Your task to perform on an android device: turn pop-ups on in chrome Image 0: 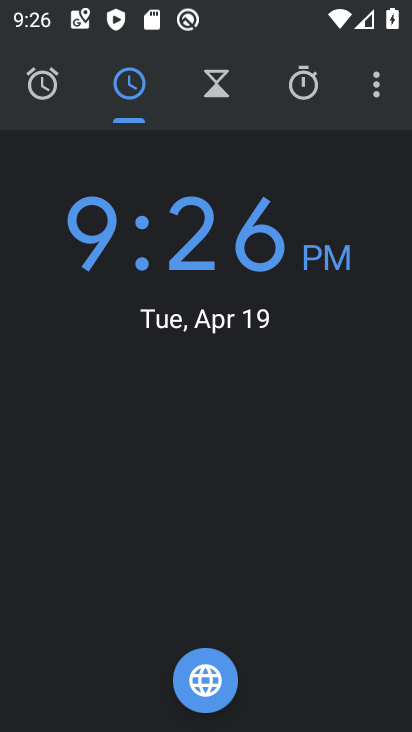
Step 0: press home button
Your task to perform on an android device: turn pop-ups on in chrome Image 1: 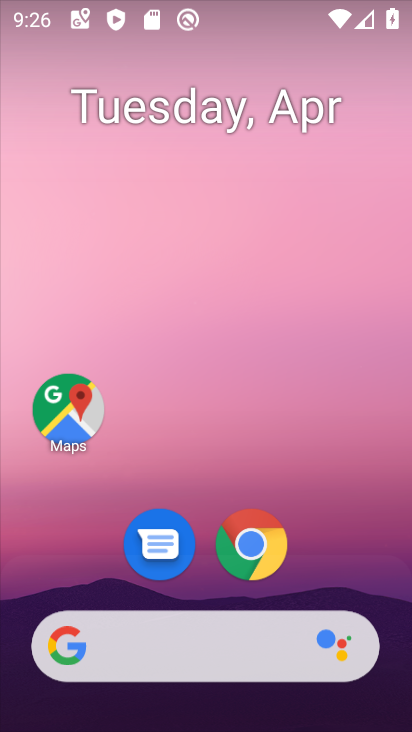
Step 1: click (266, 543)
Your task to perform on an android device: turn pop-ups on in chrome Image 2: 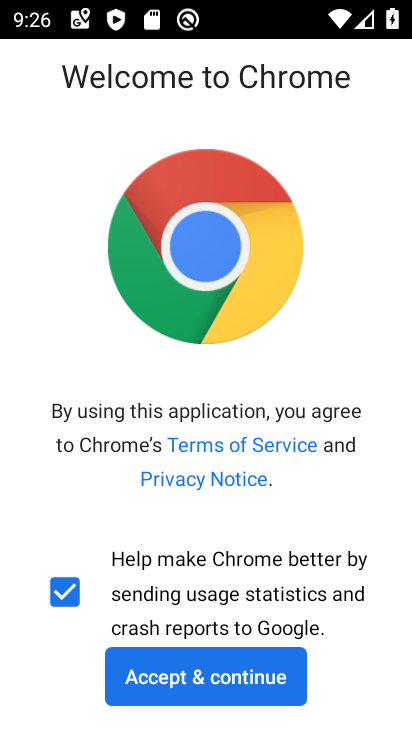
Step 2: click (192, 673)
Your task to perform on an android device: turn pop-ups on in chrome Image 3: 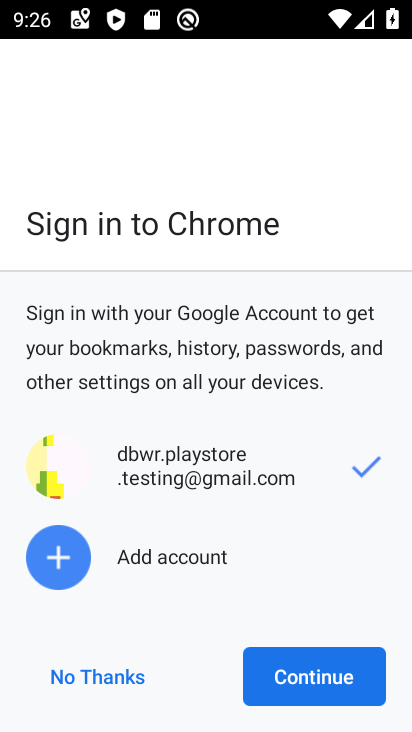
Step 3: click (289, 689)
Your task to perform on an android device: turn pop-ups on in chrome Image 4: 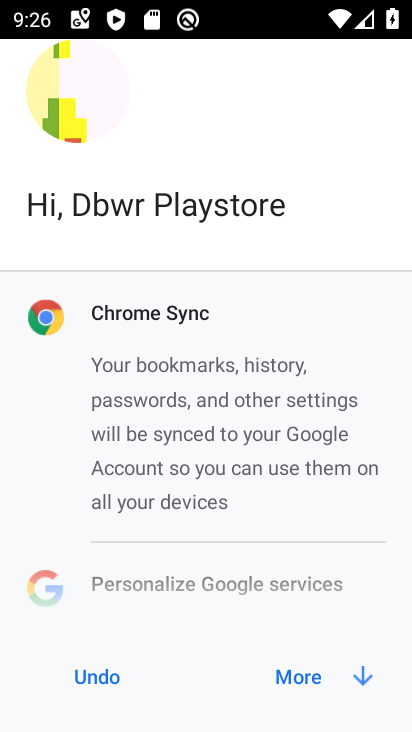
Step 4: click (301, 680)
Your task to perform on an android device: turn pop-ups on in chrome Image 5: 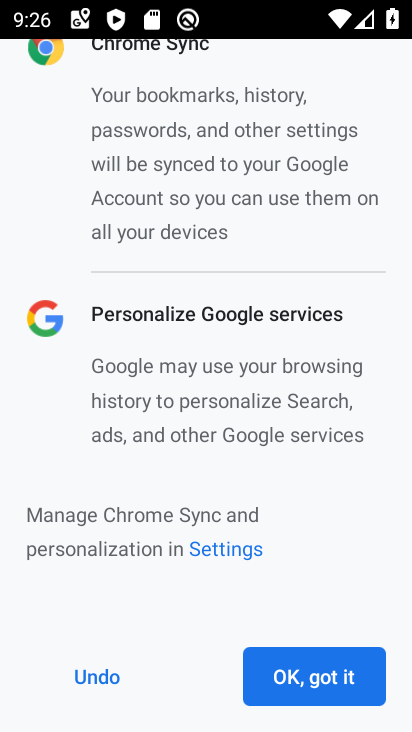
Step 5: click (301, 680)
Your task to perform on an android device: turn pop-ups on in chrome Image 6: 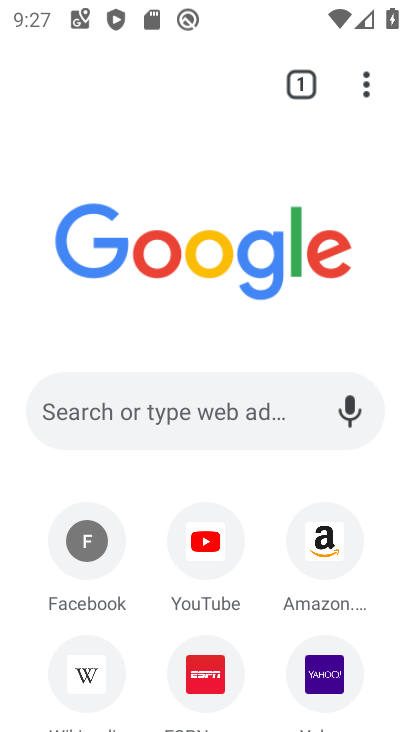
Step 6: drag from (364, 88) to (184, 598)
Your task to perform on an android device: turn pop-ups on in chrome Image 7: 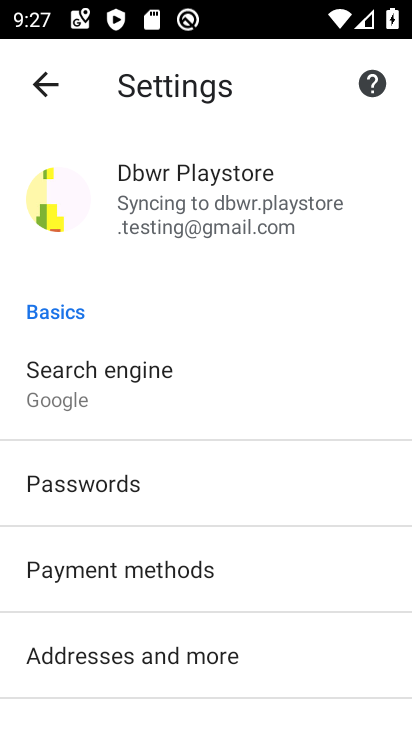
Step 7: drag from (269, 633) to (308, 274)
Your task to perform on an android device: turn pop-ups on in chrome Image 8: 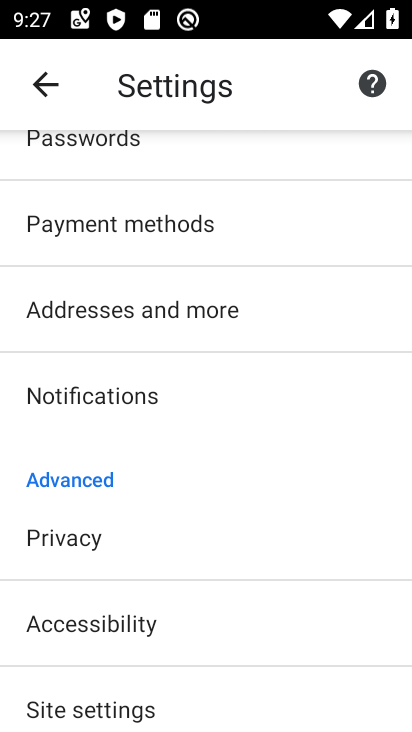
Step 8: click (170, 708)
Your task to perform on an android device: turn pop-ups on in chrome Image 9: 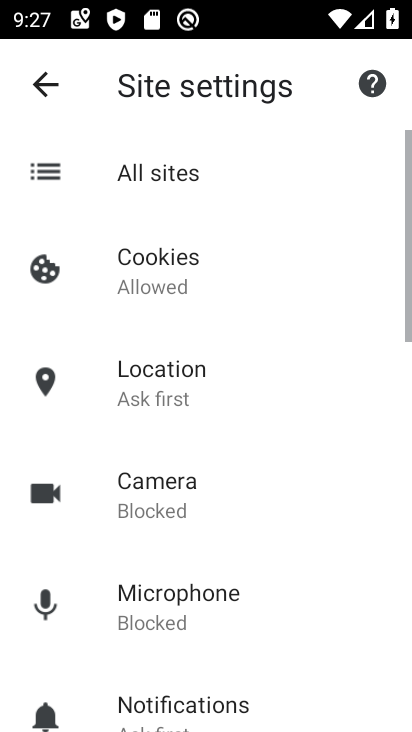
Step 9: drag from (274, 656) to (331, 240)
Your task to perform on an android device: turn pop-ups on in chrome Image 10: 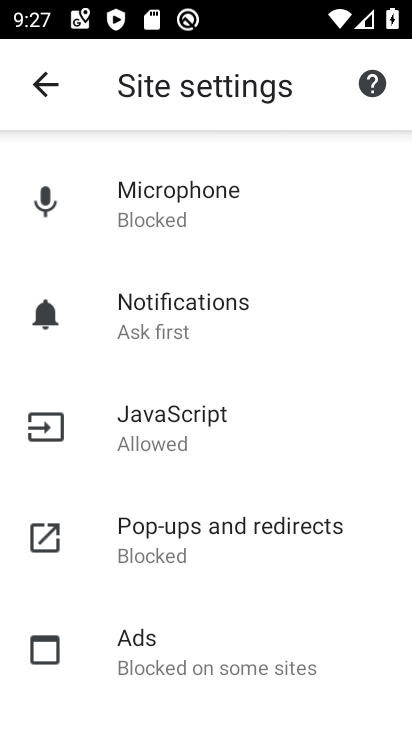
Step 10: click (214, 550)
Your task to perform on an android device: turn pop-ups on in chrome Image 11: 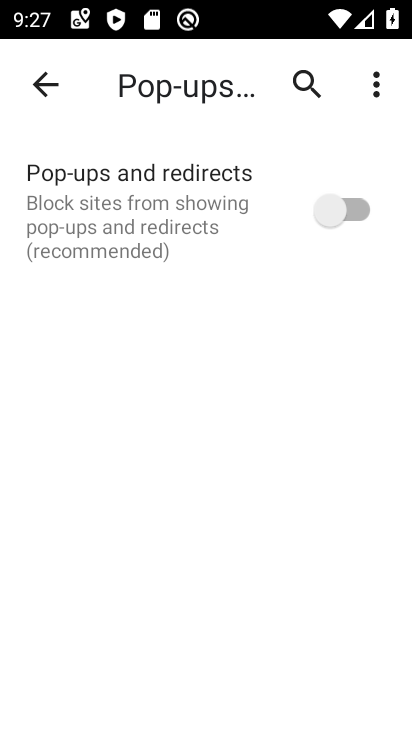
Step 11: click (355, 208)
Your task to perform on an android device: turn pop-ups on in chrome Image 12: 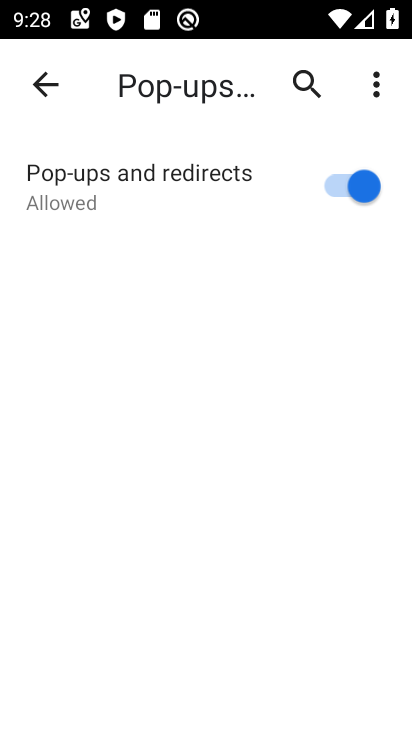
Step 12: task complete